Your task to perform on an android device: turn on javascript in the chrome app Image 0: 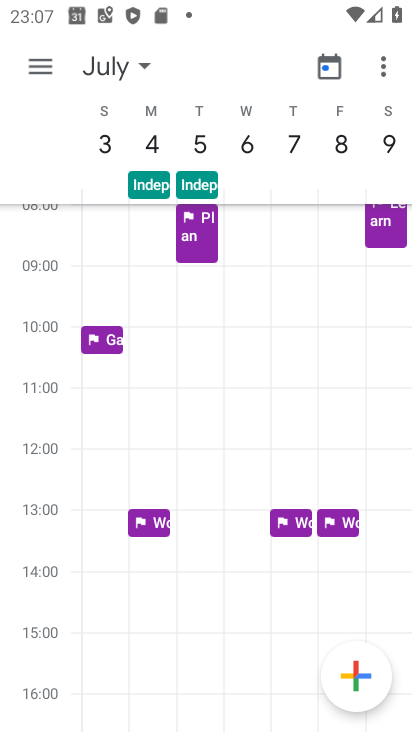
Step 0: press home button
Your task to perform on an android device: turn on javascript in the chrome app Image 1: 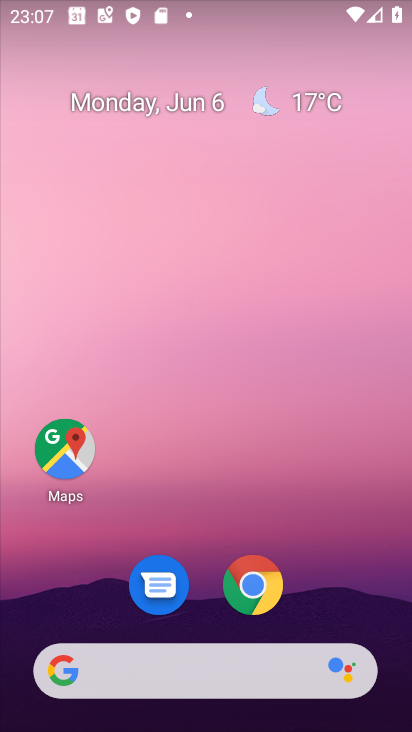
Step 1: click (264, 588)
Your task to perform on an android device: turn on javascript in the chrome app Image 2: 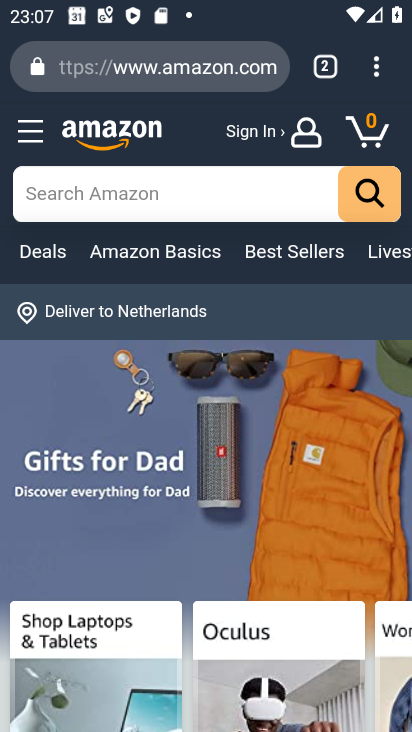
Step 2: click (379, 59)
Your task to perform on an android device: turn on javascript in the chrome app Image 3: 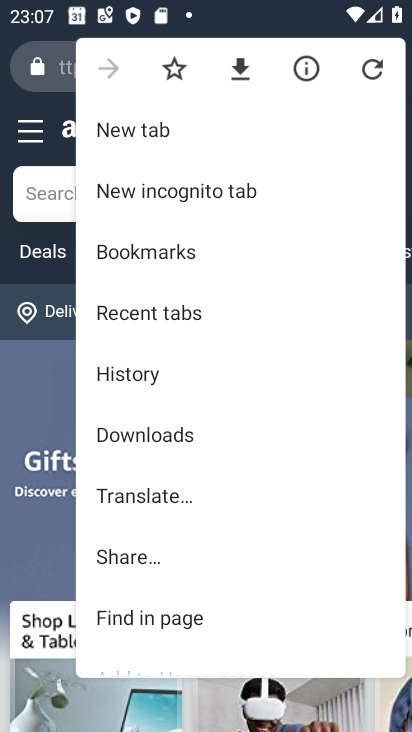
Step 3: drag from (207, 517) to (276, 191)
Your task to perform on an android device: turn on javascript in the chrome app Image 4: 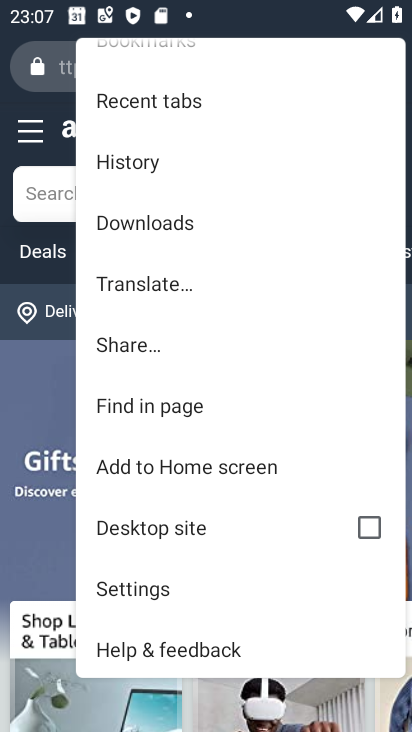
Step 4: click (168, 581)
Your task to perform on an android device: turn on javascript in the chrome app Image 5: 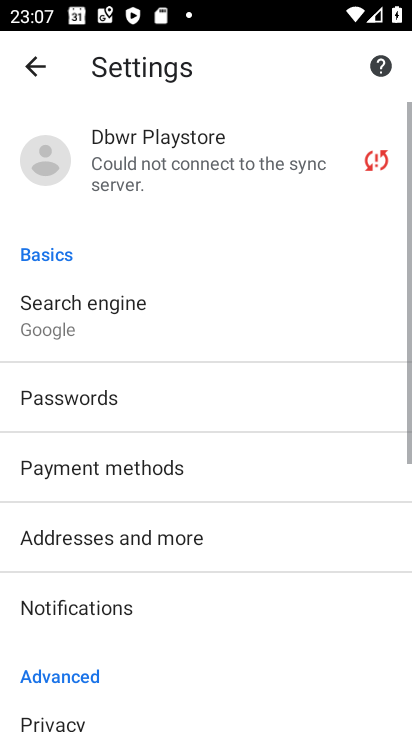
Step 5: drag from (257, 453) to (262, 140)
Your task to perform on an android device: turn on javascript in the chrome app Image 6: 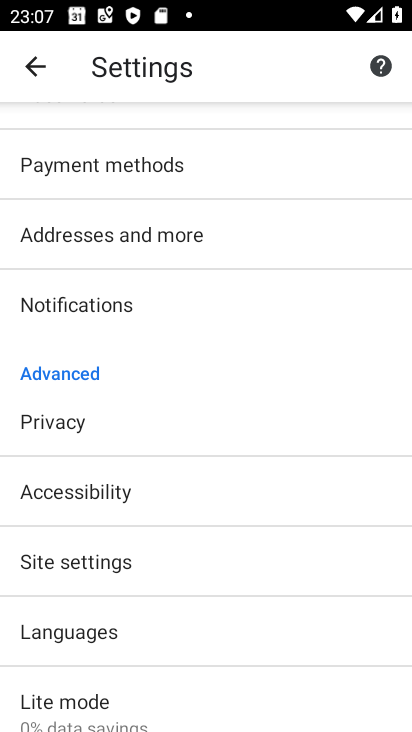
Step 6: click (190, 556)
Your task to perform on an android device: turn on javascript in the chrome app Image 7: 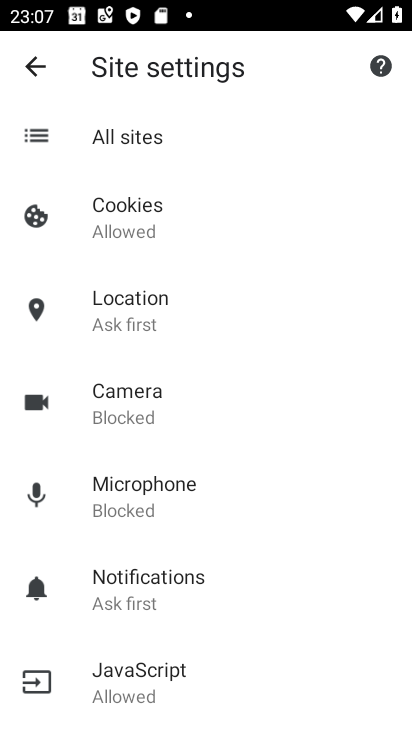
Step 7: click (189, 660)
Your task to perform on an android device: turn on javascript in the chrome app Image 8: 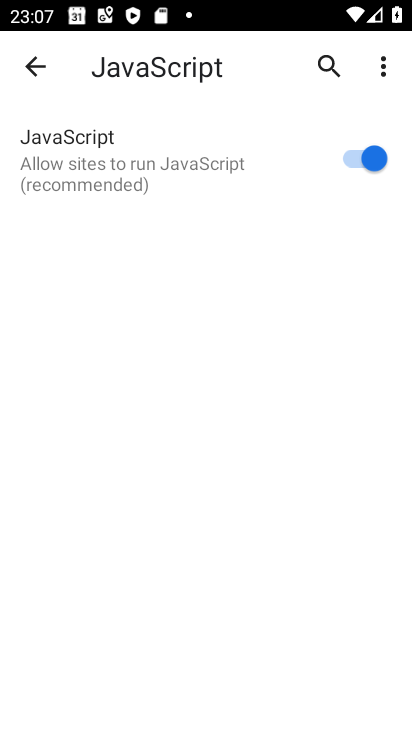
Step 8: task complete